Your task to perform on an android device: View the shopping cart on newegg.com. Add macbook pro 13 inch to the cart on newegg.com, then select checkout. Image 0: 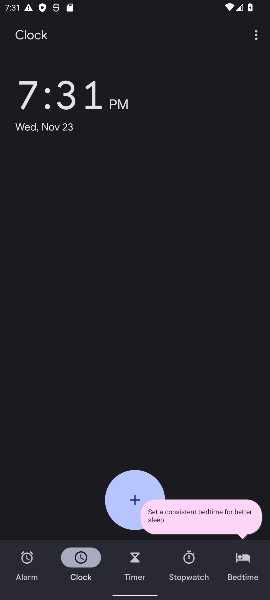
Step 0: press home button
Your task to perform on an android device: View the shopping cart on newegg.com. Add macbook pro 13 inch to the cart on newegg.com, then select checkout. Image 1: 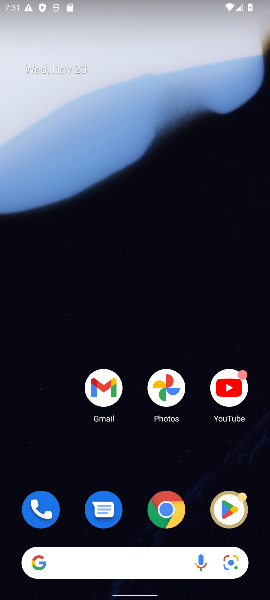
Step 1: click (162, 516)
Your task to perform on an android device: View the shopping cart on newegg.com. Add macbook pro 13 inch to the cart on newegg.com, then select checkout. Image 2: 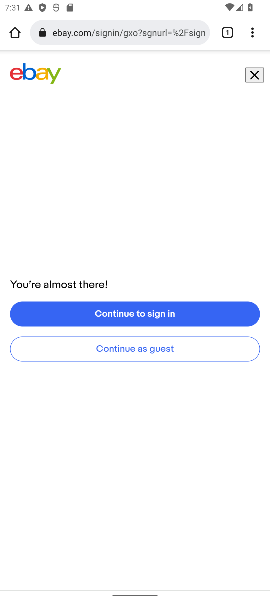
Step 2: click (124, 30)
Your task to perform on an android device: View the shopping cart on newegg.com. Add macbook pro 13 inch to the cart on newegg.com, then select checkout. Image 3: 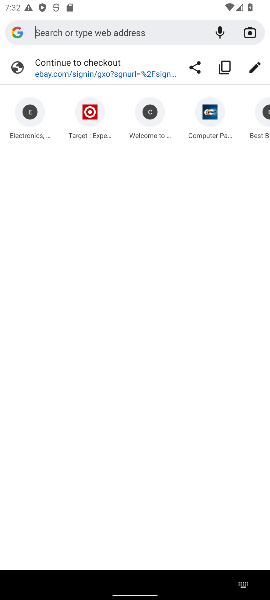
Step 3: type "newegg.com"
Your task to perform on an android device: View the shopping cart on newegg.com. Add macbook pro 13 inch to the cart on newegg.com, then select checkout. Image 4: 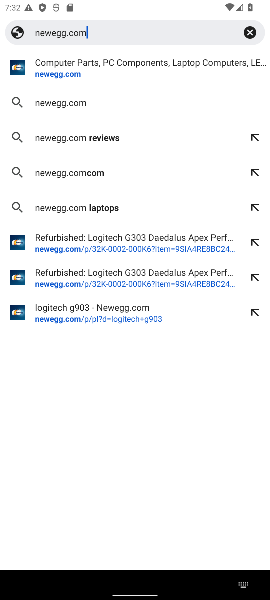
Step 4: click (83, 70)
Your task to perform on an android device: View the shopping cart on newegg.com. Add macbook pro 13 inch to the cart on newegg.com, then select checkout. Image 5: 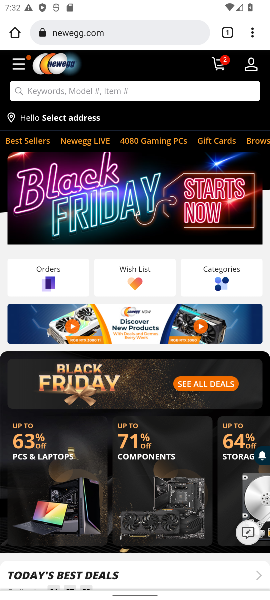
Step 5: click (221, 68)
Your task to perform on an android device: View the shopping cart on newegg.com. Add macbook pro 13 inch to the cart on newegg.com, then select checkout. Image 6: 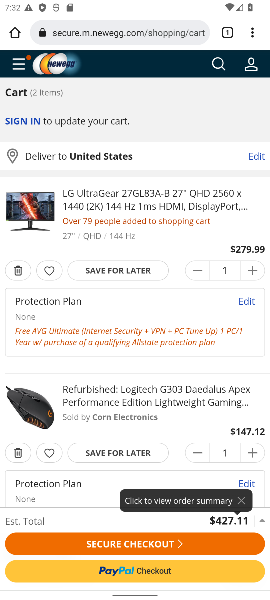
Step 6: click (214, 62)
Your task to perform on an android device: View the shopping cart on newegg.com. Add macbook pro 13 inch to the cart on newegg.com, then select checkout. Image 7: 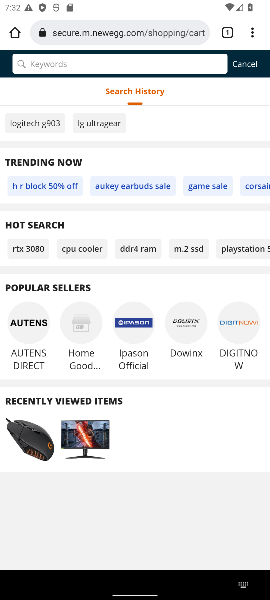
Step 7: type "macbook pro 13 inch"
Your task to perform on an android device: View the shopping cart on newegg.com. Add macbook pro 13 inch to the cart on newegg.com, then select checkout. Image 8: 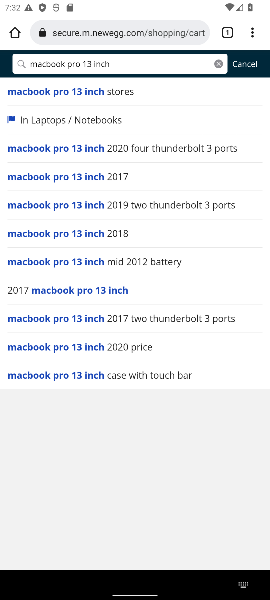
Step 8: press enter
Your task to perform on an android device: View the shopping cart on newegg.com. Add macbook pro 13 inch to the cart on newegg.com, then select checkout. Image 9: 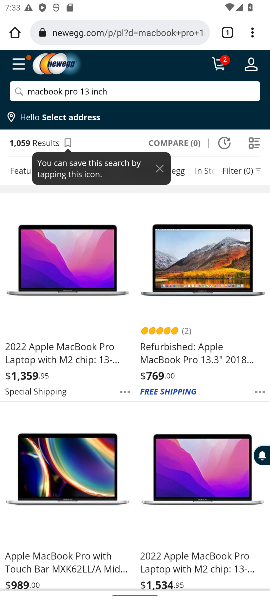
Step 9: click (84, 345)
Your task to perform on an android device: View the shopping cart on newegg.com. Add macbook pro 13 inch to the cart on newegg.com, then select checkout. Image 10: 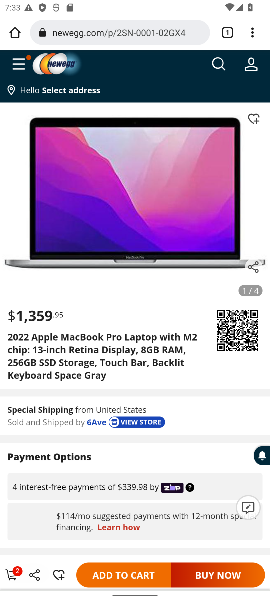
Step 10: click (134, 578)
Your task to perform on an android device: View the shopping cart on newegg.com. Add macbook pro 13 inch to the cart on newegg.com, then select checkout. Image 11: 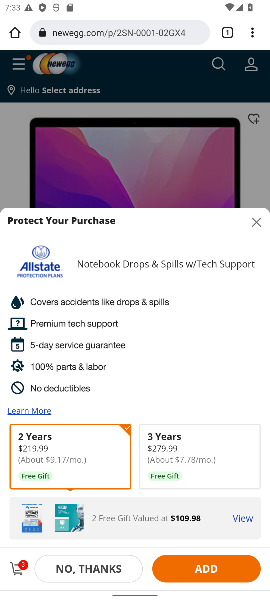
Step 11: click (23, 568)
Your task to perform on an android device: View the shopping cart on newegg.com. Add macbook pro 13 inch to the cart on newegg.com, then select checkout. Image 12: 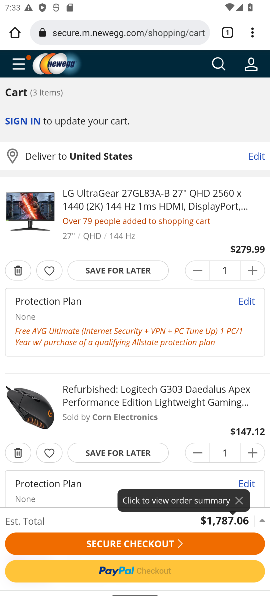
Step 12: click (146, 540)
Your task to perform on an android device: View the shopping cart on newegg.com. Add macbook pro 13 inch to the cart on newegg.com, then select checkout. Image 13: 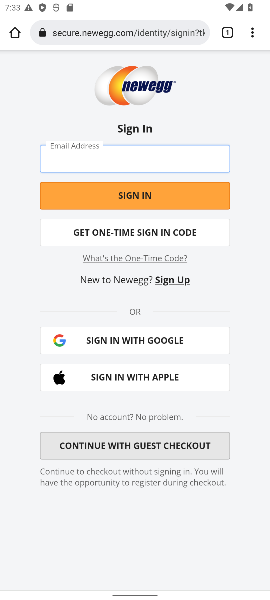
Step 13: task complete